Your task to perform on an android device: toggle priority inbox in the gmail app Image 0: 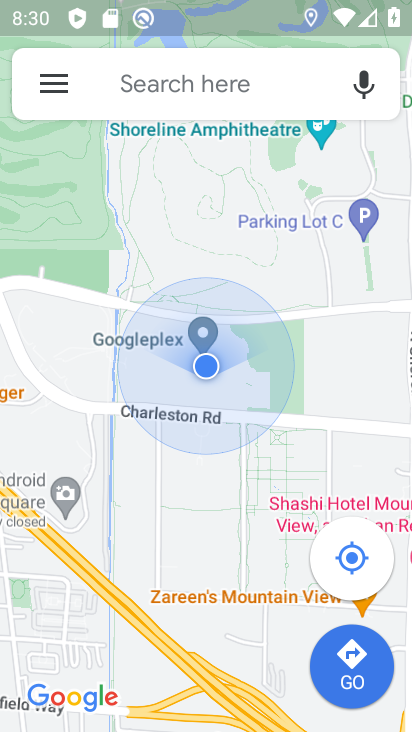
Step 0: press home button
Your task to perform on an android device: toggle priority inbox in the gmail app Image 1: 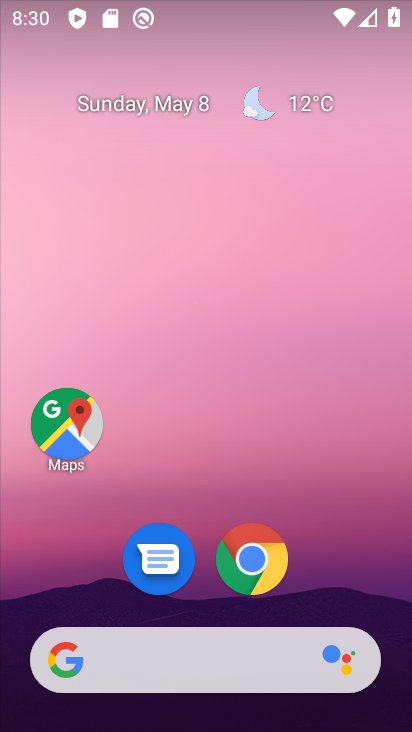
Step 1: drag from (192, 615) to (244, 73)
Your task to perform on an android device: toggle priority inbox in the gmail app Image 2: 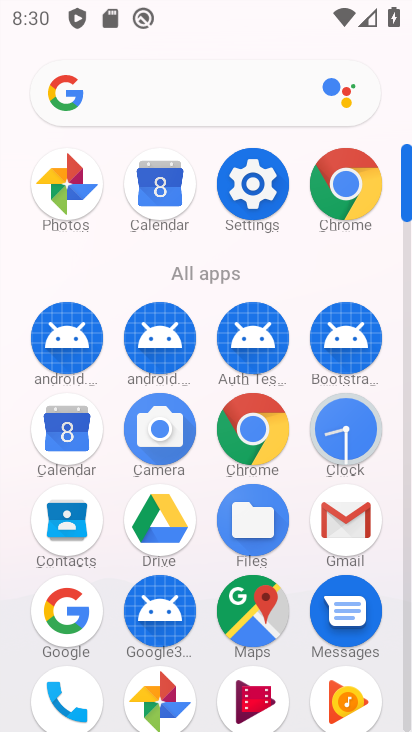
Step 2: click (346, 525)
Your task to perform on an android device: toggle priority inbox in the gmail app Image 3: 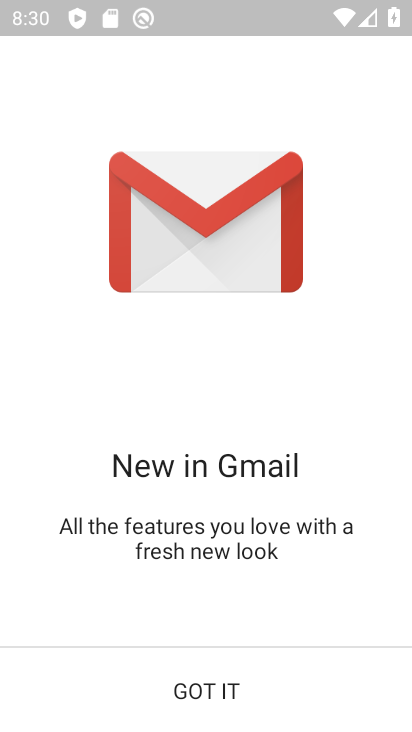
Step 3: click (237, 681)
Your task to perform on an android device: toggle priority inbox in the gmail app Image 4: 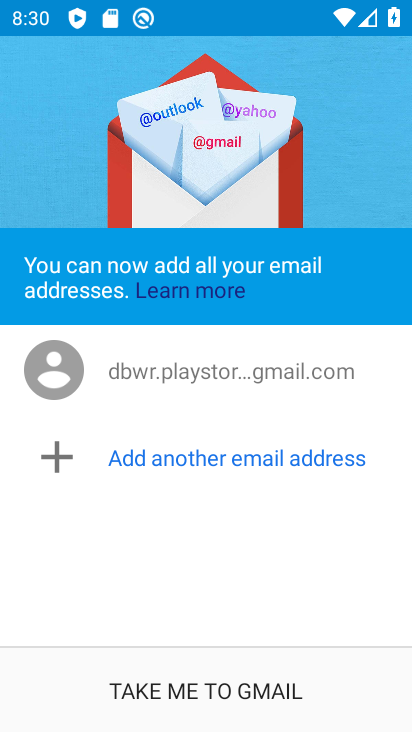
Step 4: click (214, 696)
Your task to perform on an android device: toggle priority inbox in the gmail app Image 5: 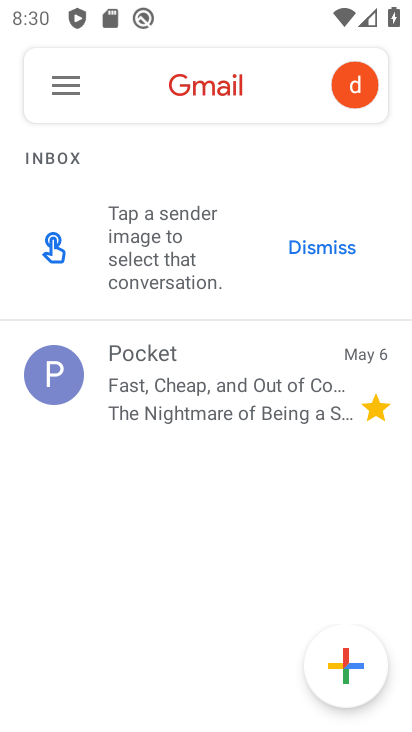
Step 5: click (64, 81)
Your task to perform on an android device: toggle priority inbox in the gmail app Image 6: 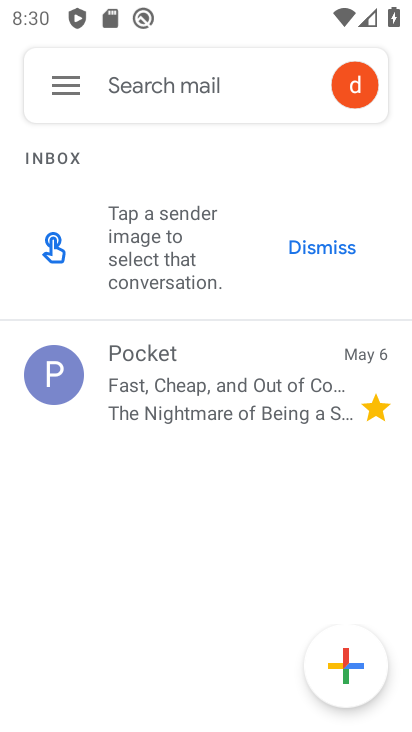
Step 6: click (74, 80)
Your task to perform on an android device: toggle priority inbox in the gmail app Image 7: 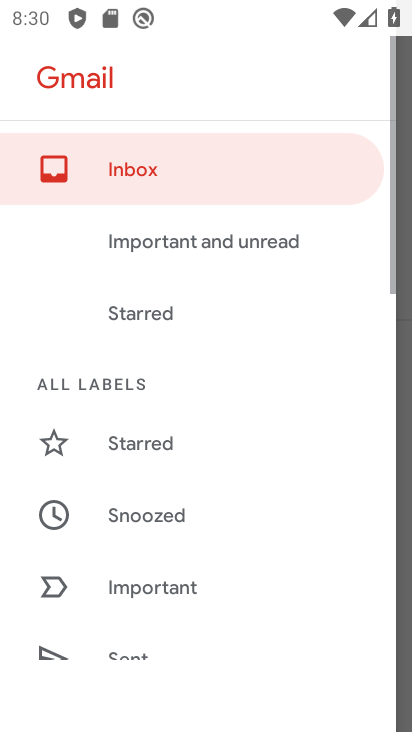
Step 7: drag from (109, 503) to (110, 24)
Your task to perform on an android device: toggle priority inbox in the gmail app Image 8: 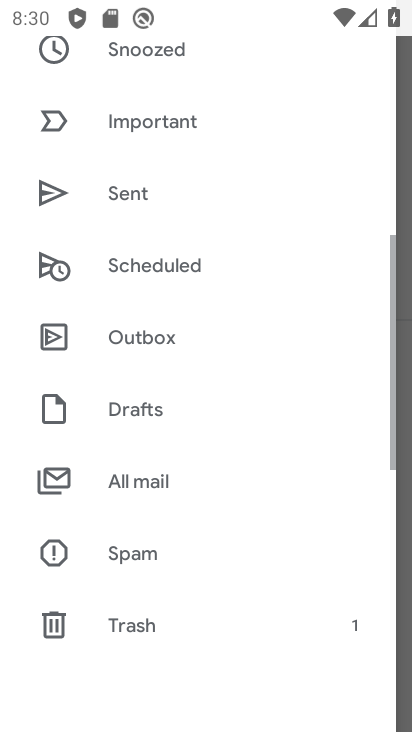
Step 8: drag from (196, 460) to (172, 4)
Your task to perform on an android device: toggle priority inbox in the gmail app Image 9: 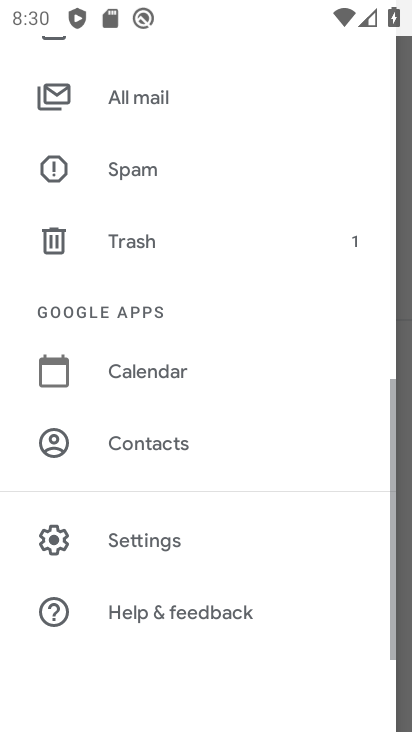
Step 9: click (163, 519)
Your task to perform on an android device: toggle priority inbox in the gmail app Image 10: 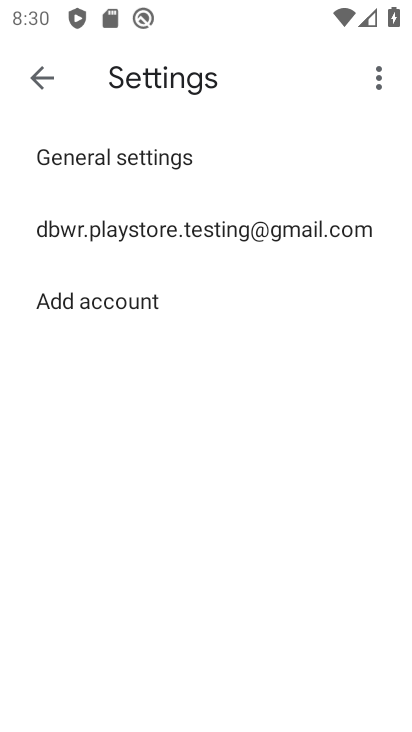
Step 10: click (131, 156)
Your task to perform on an android device: toggle priority inbox in the gmail app Image 11: 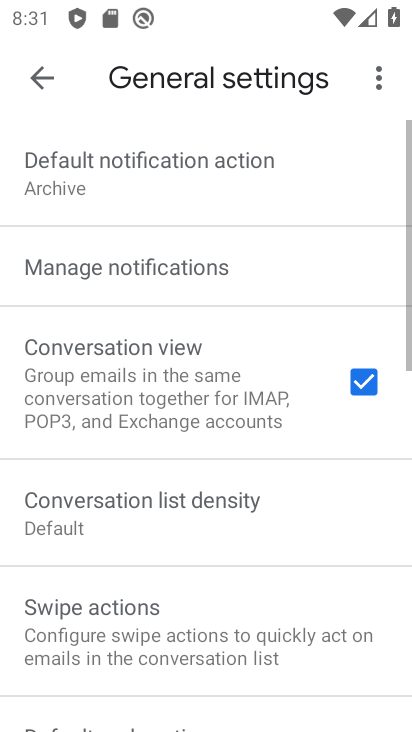
Step 11: drag from (219, 597) to (151, 161)
Your task to perform on an android device: toggle priority inbox in the gmail app Image 12: 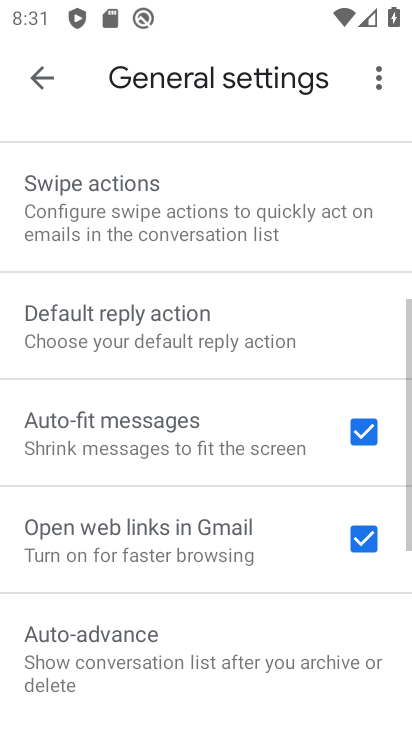
Step 12: click (49, 76)
Your task to perform on an android device: toggle priority inbox in the gmail app Image 13: 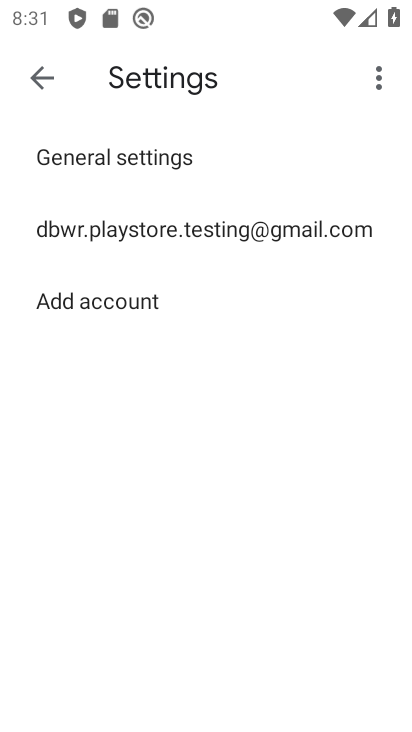
Step 13: click (103, 224)
Your task to perform on an android device: toggle priority inbox in the gmail app Image 14: 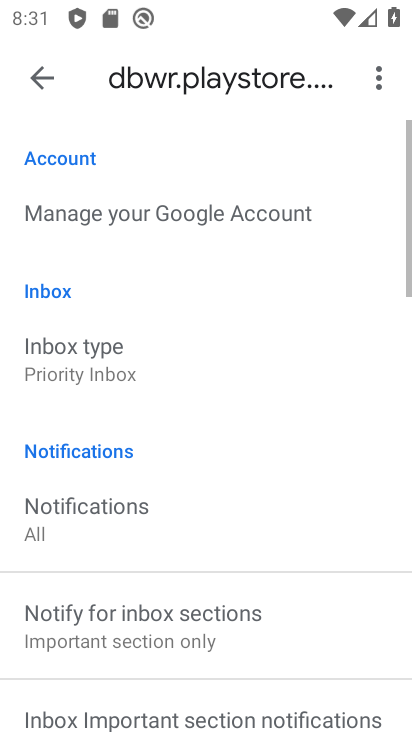
Step 14: click (116, 367)
Your task to perform on an android device: toggle priority inbox in the gmail app Image 15: 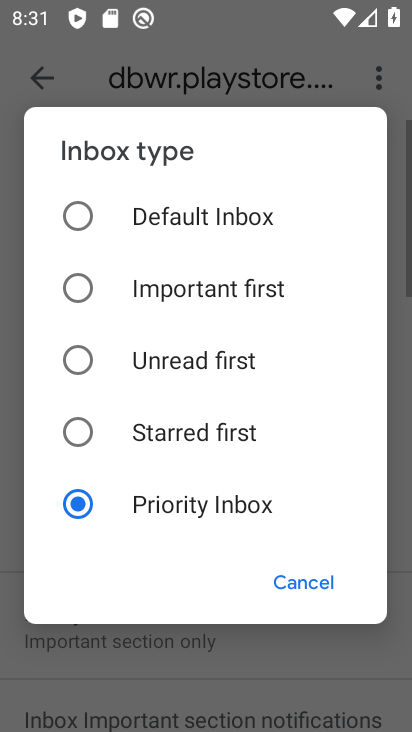
Step 15: click (114, 428)
Your task to perform on an android device: toggle priority inbox in the gmail app Image 16: 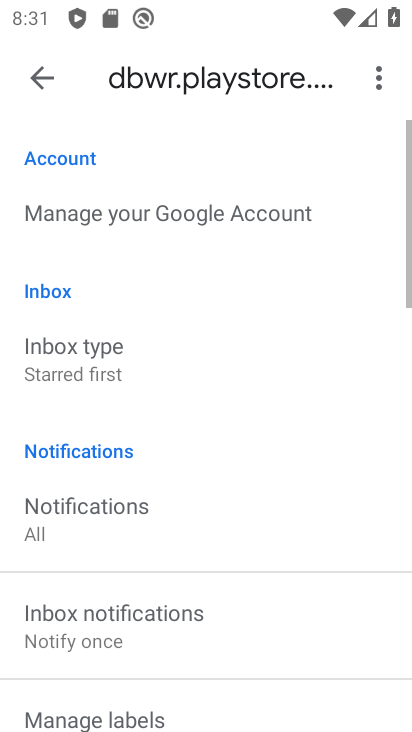
Step 16: task complete